Your task to perform on an android device: What's the weather today? Image 0: 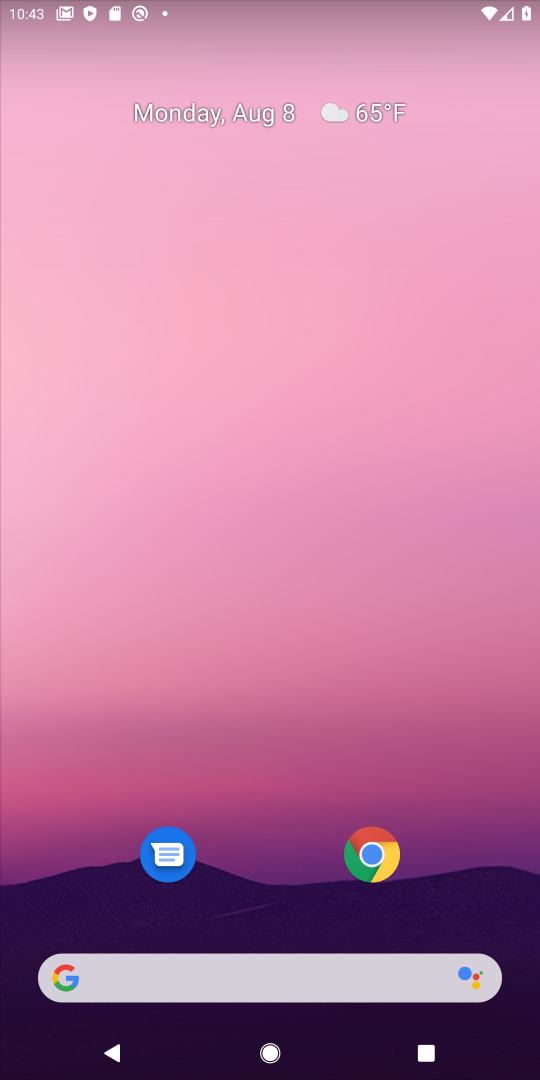
Step 0: click (378, 118)
Your task to perform on an android device: What's the weather today? Image 1: 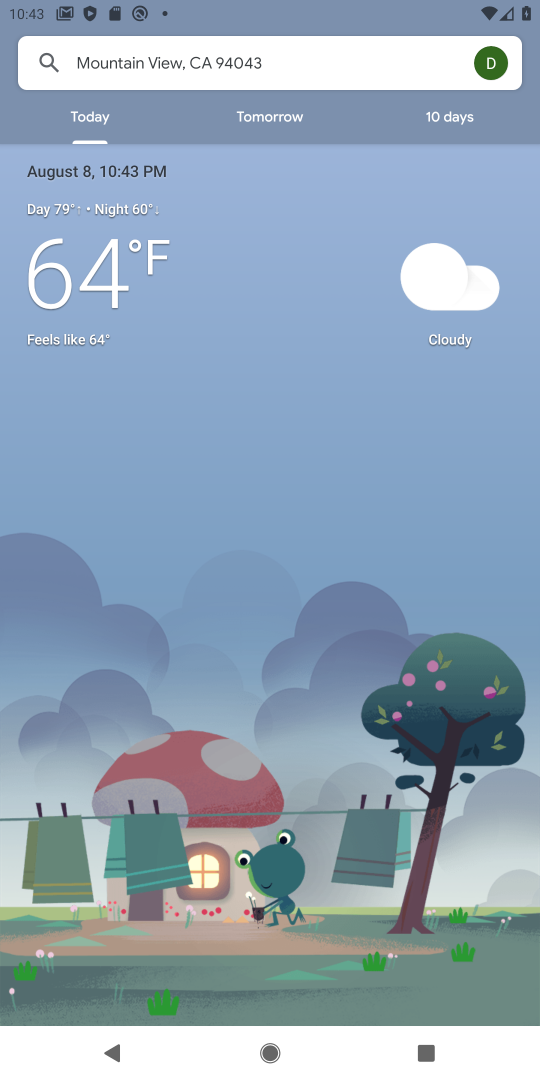
Step 1: task complete